Your task to perform on an android device: install app "Pinterest" Image 0: 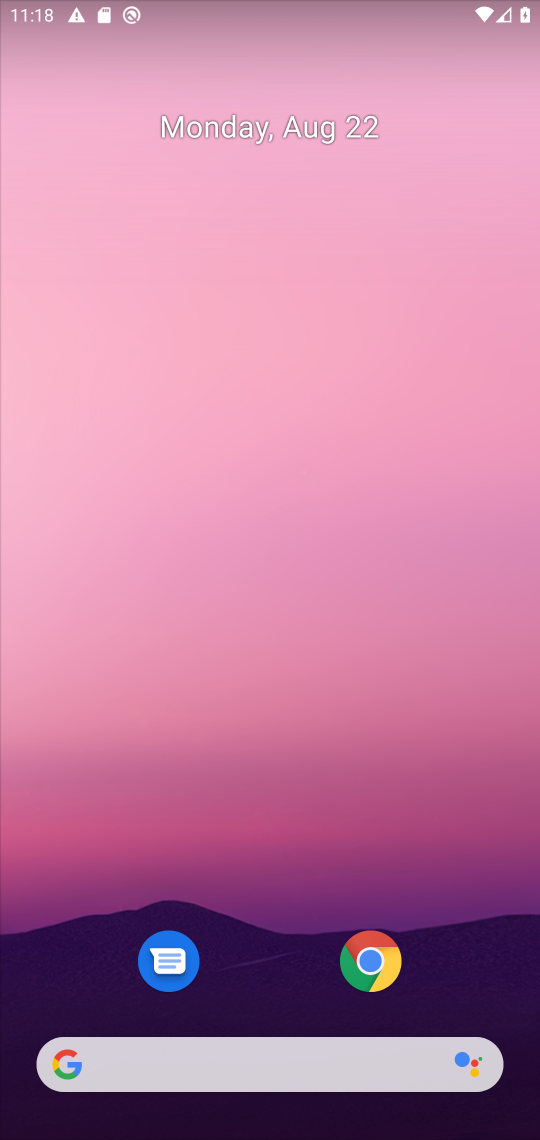
Step 0: drag from (311, 1025) to (460, 226)
Your task to perform on an android device: install app "Pinterest" Image 1: 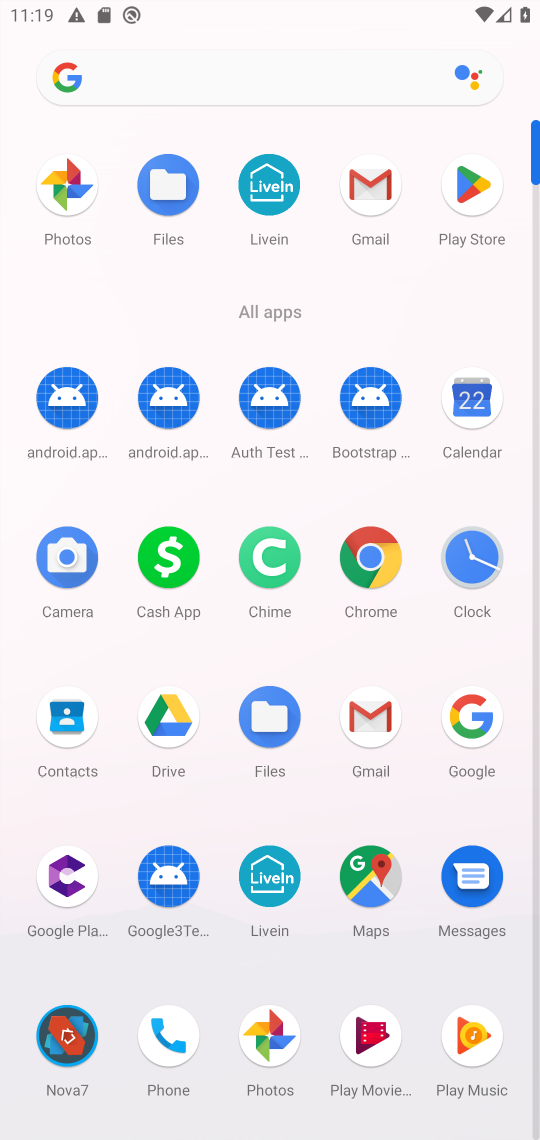
Step 1: click (452, 195)
Your task to perform on an android device: install app "Pinterest" Image 2: 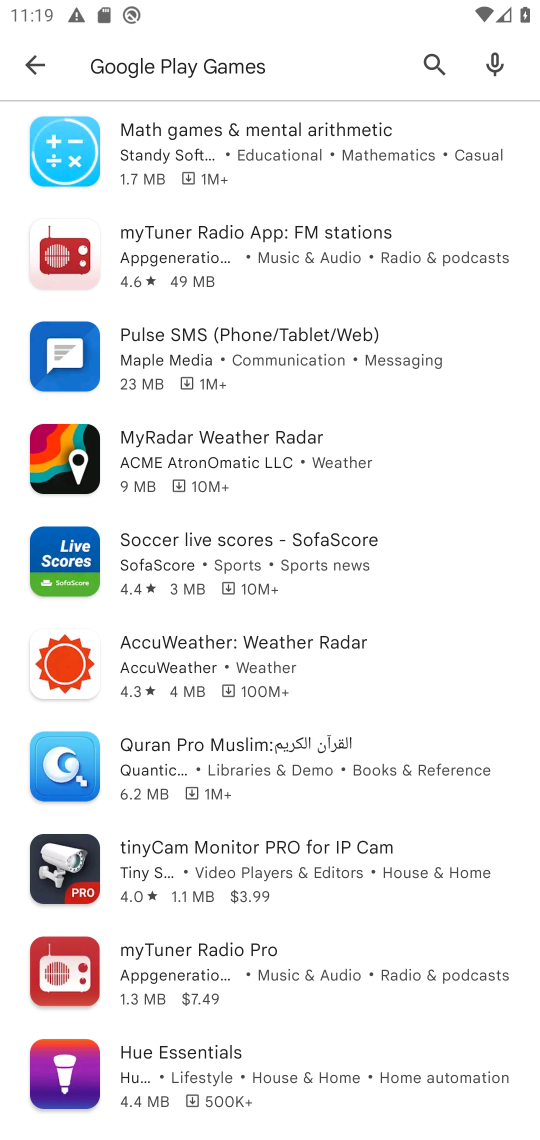
Step 2: click (437, 85)
Your task to perform on an android device: install app "Pinterest" Image 3: 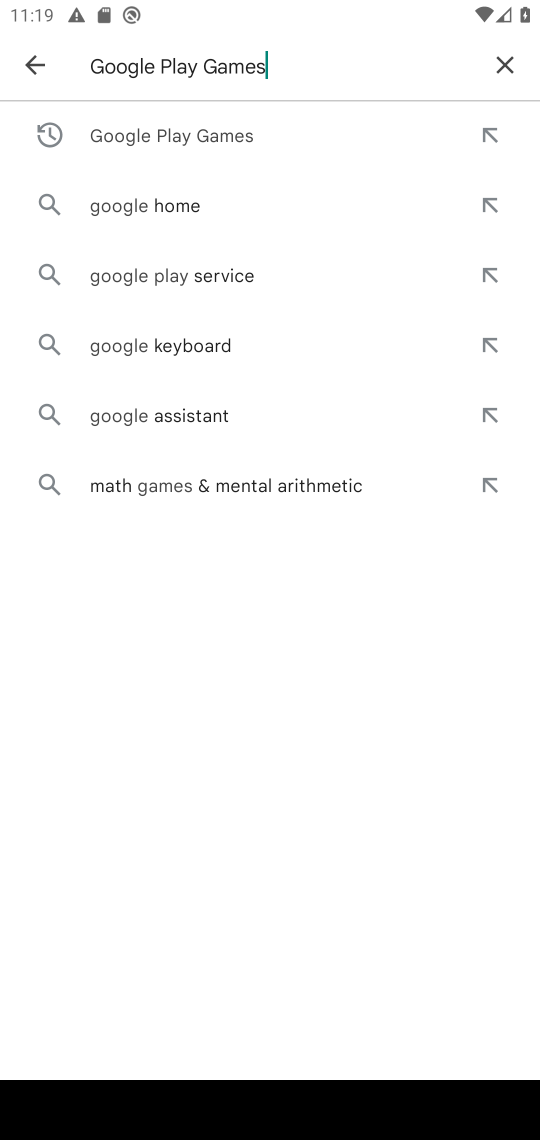
Step 3: click (489, 76)
Your task to perform on an android device: install app "Pinterest" Image 4: 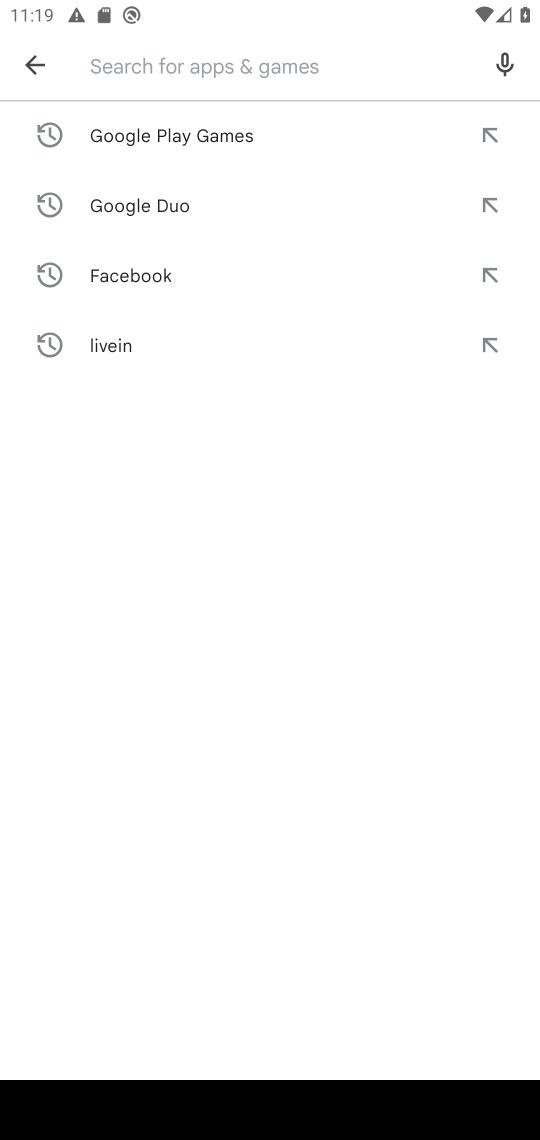
Step 4: type "pinterrest"
Your task to perform on an android device: install app "Pinterest" Image 5: 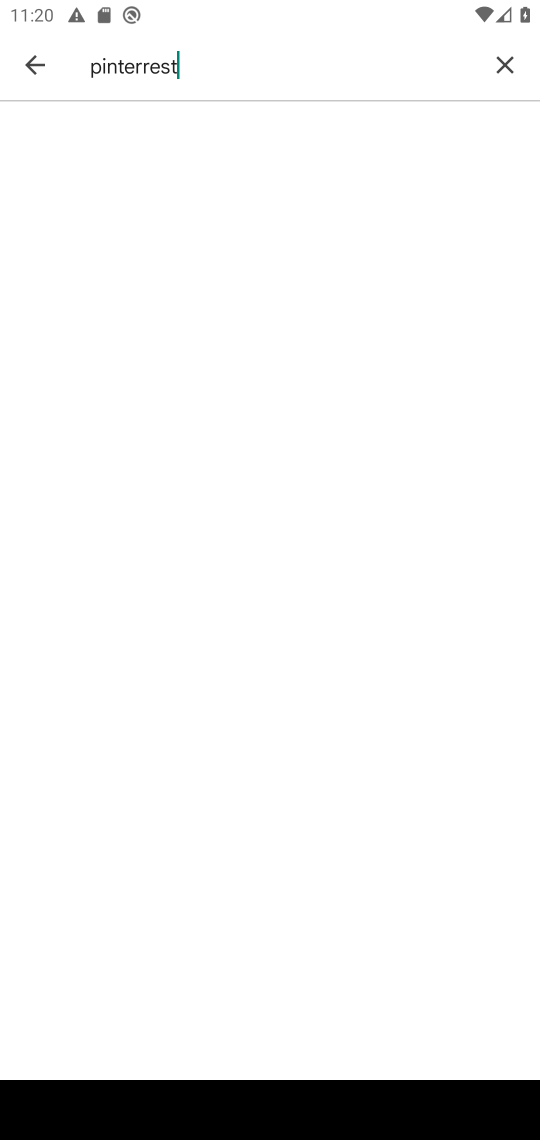
Step 5: task complete